Your task to perform on an android device: Play the last video I watched on Youtube Image 0: 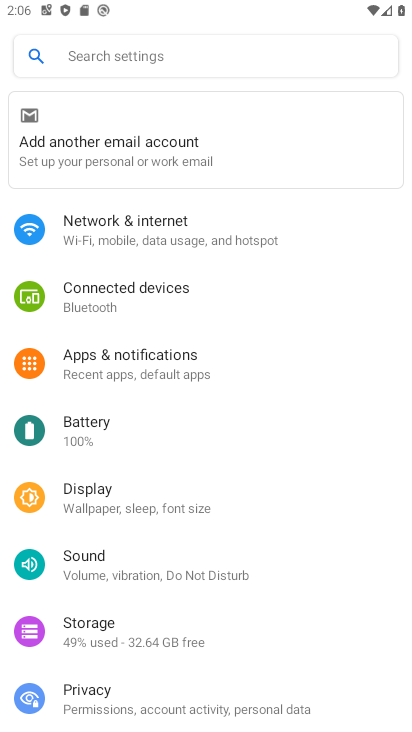
Step 0: press back button
Your task to perform on an android device: Play the last video I watched on Youtube Image 1: 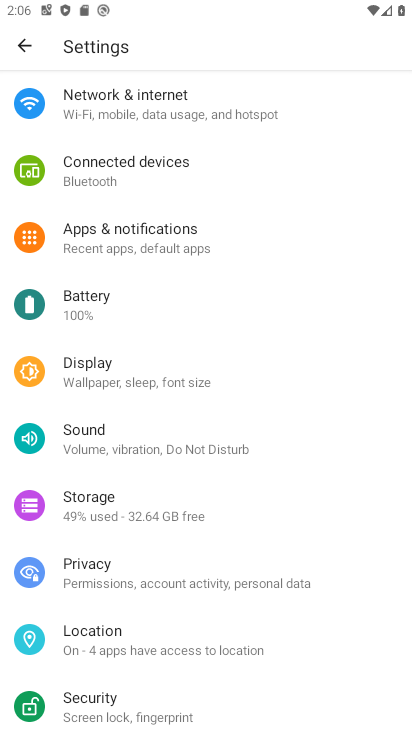
Step 1: press back button
Your task to perform on an android device: Play the last video I watched on Youtube Image 2: 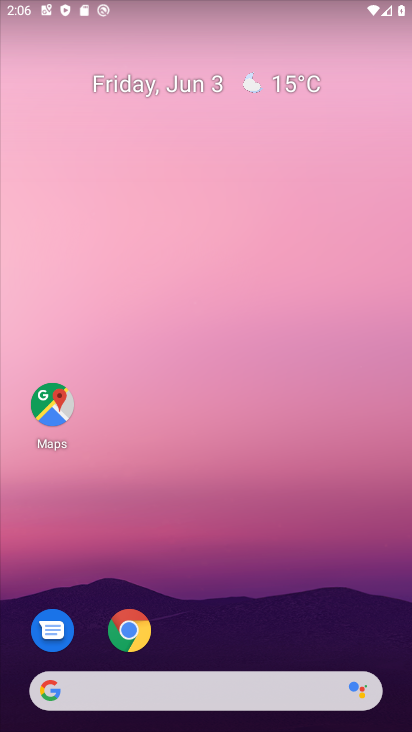
Step 2: drag from (281, 497) to (280, 23)
Your task to perform on an android device: Play the last video I watched on Youtube Image 3: 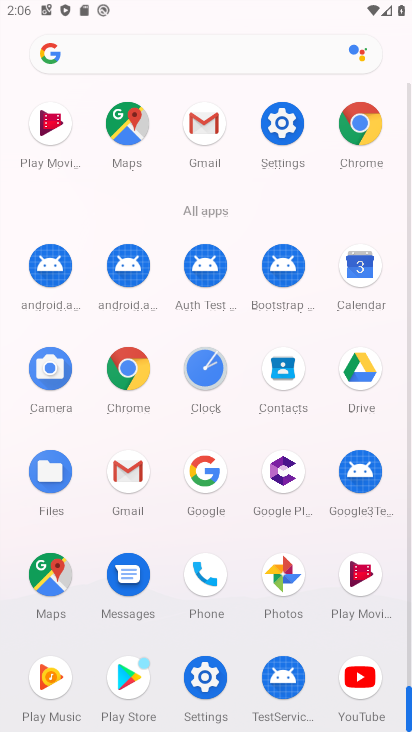
Step 3: click (359, 668)
Your task to perform on an android device: Play the last video I watched on Youtube Image 4: 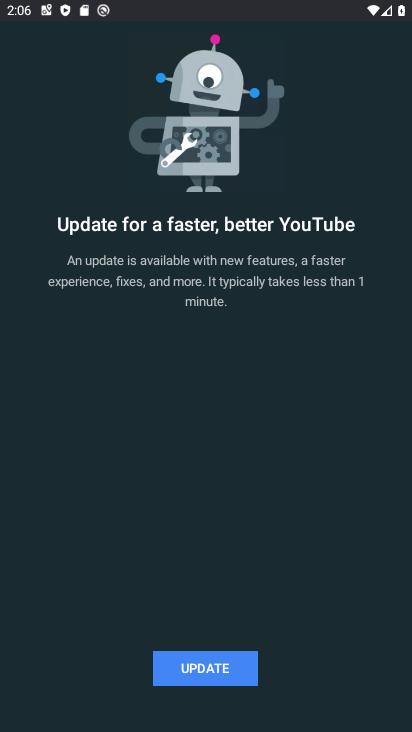
Step 4: click (246, 666)
Your task to perform on an android device: Play the last video I watched on Youtube Image 5: 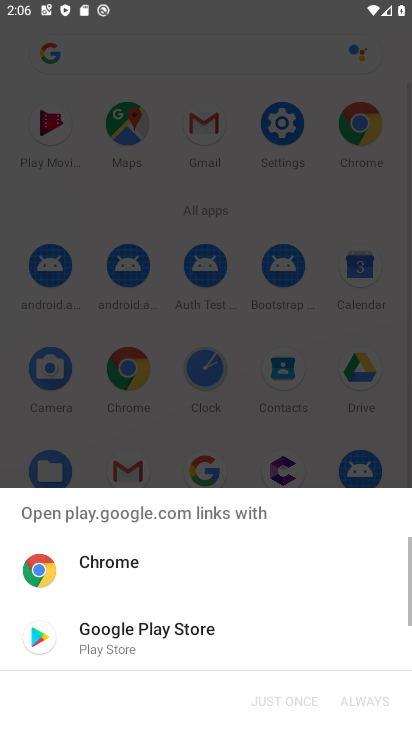
Step 5: click (103, 641)
Your task to perform on an android device: Play the last video I watched on Youtube Image 6: 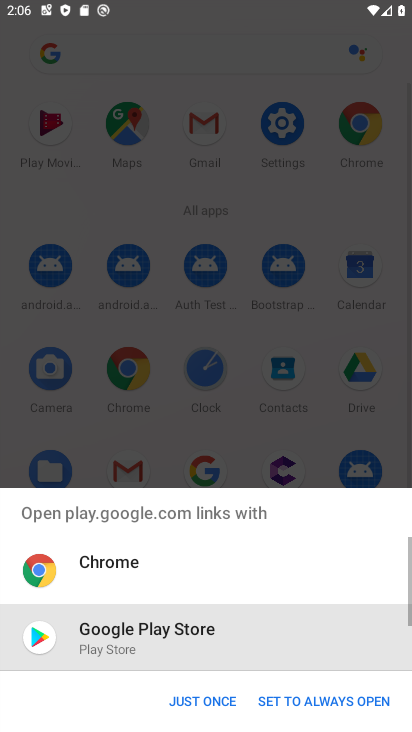
Step 6: click (210, 697)
Your task to perform on an android device: Play the last video I watched on Youtube Image 7: 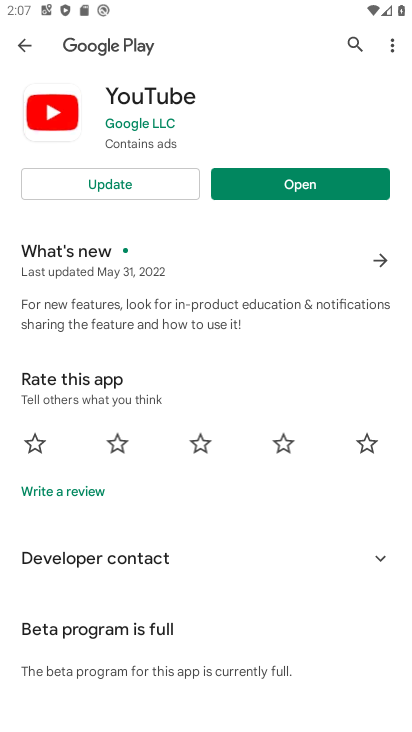
Step 7: click (156, 179)
Your task to perform on an android device: Play the last video I watched on Youtube Image 8: 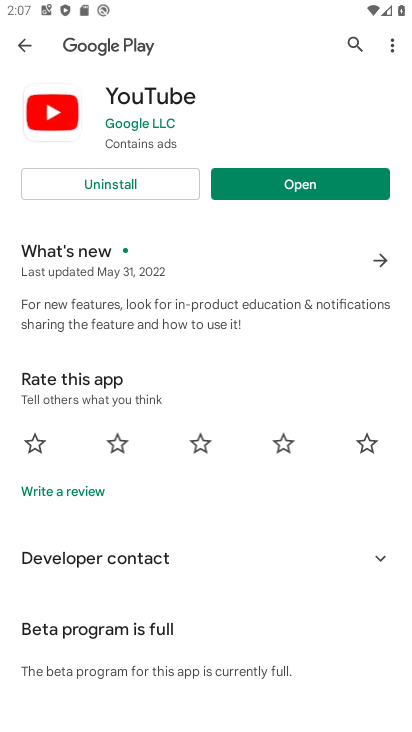
Step 8: click (312, 183)
Your task to perform on an android device: Play the last video I watched on Youtube Image 9: 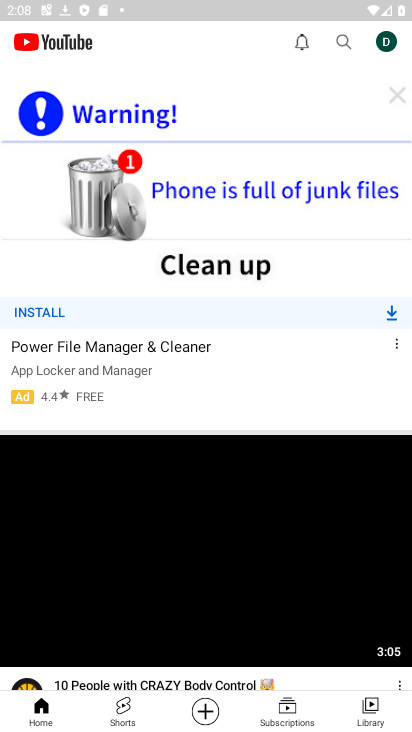
Step 9: click (380, 705)
Your task to perform on an android device: Play the last video I watched on Youtube Image 10: 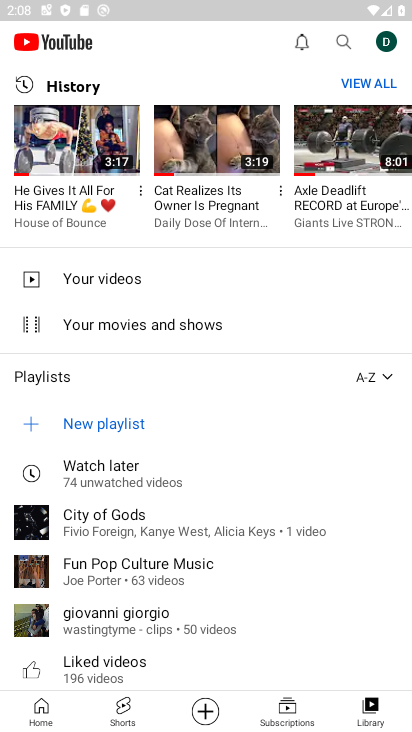
Step 10: click (98, 135)
Your task to perform on an android device: Play the last video I watched on Youtube Image 11: 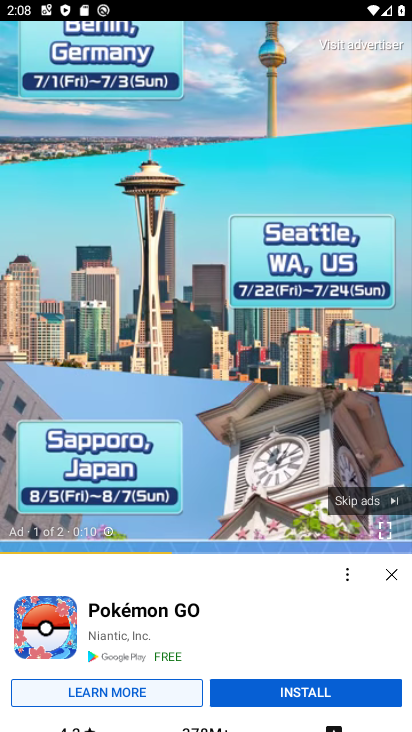
Step 11: click (391, 498)
Your task to perform on an android device: Play the last video I watched on Youtube Image 12: 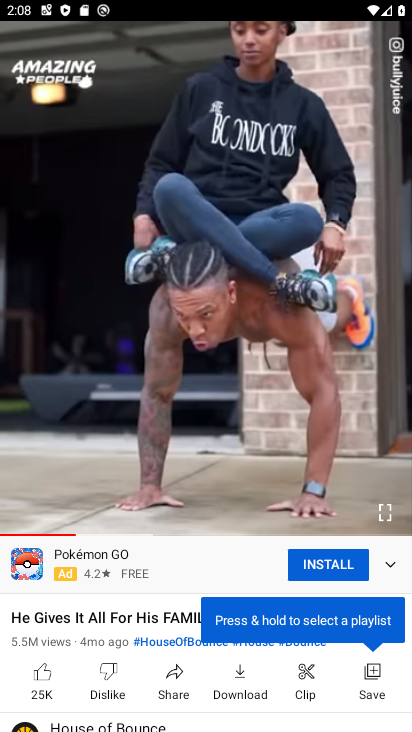
Step 12: task complete